Your task to perform on an android device: Turn off the flashlight Image 0: 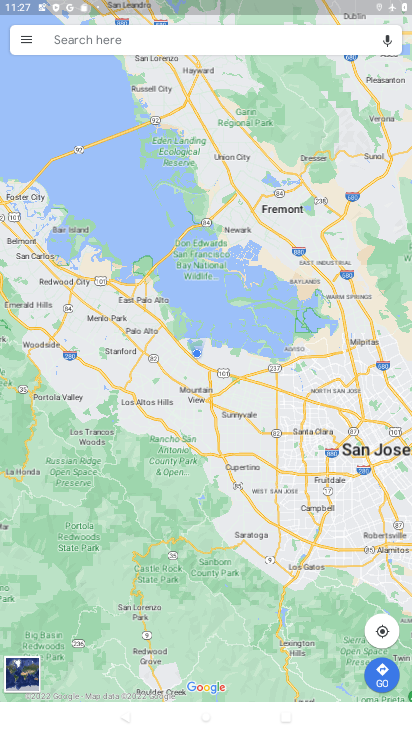
Step 0: press home button
Your task to perform on an android device: Turn off the flashlight Image 1: 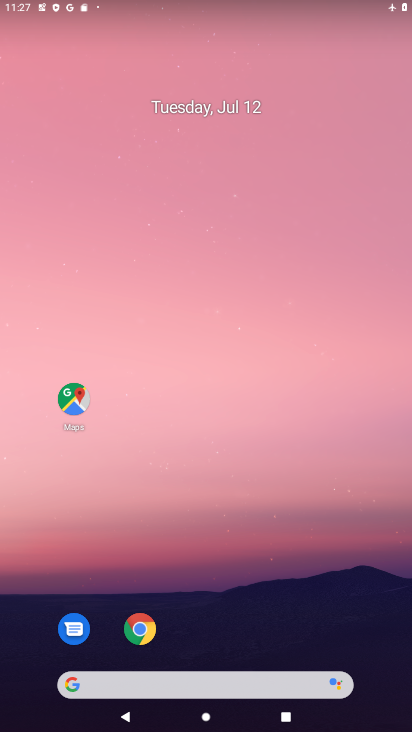
Step 1: drag from (232, 641) to (246, 145)
Your task to perform on an android device: Turn off the flashlight Image 2: 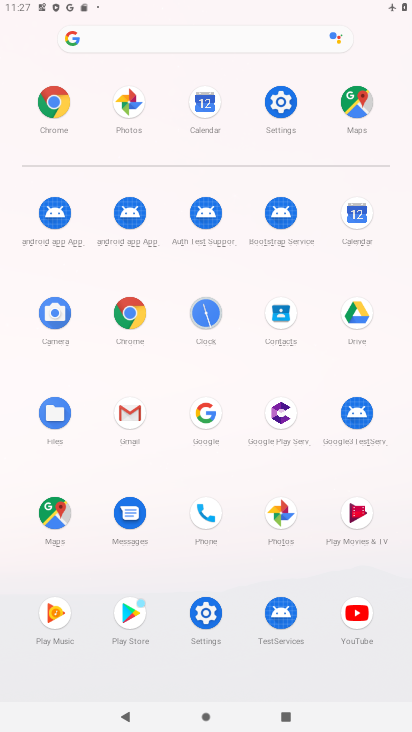
Step 2: click (275, 107)
Your task to perform on an android device: Turn off the flashlight Image 3: 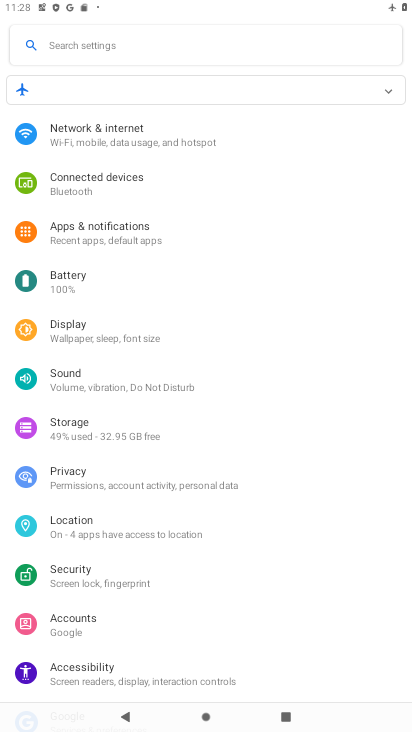
Step 3: task complete